Your task to perform on an android device: Go to sound settings Image 0: 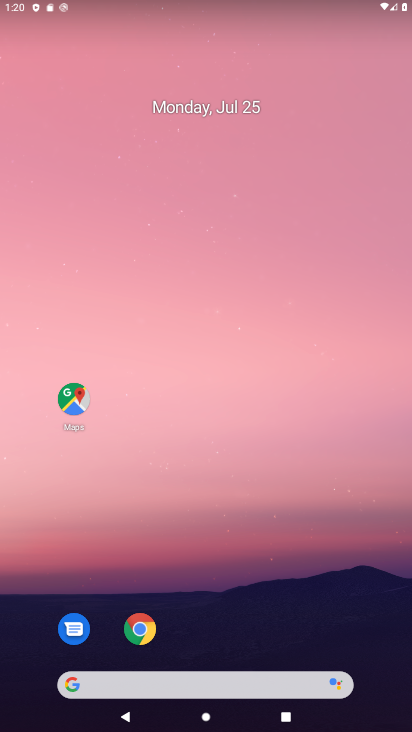
Step 0: drag from (183, 640) to (241, 251)
Your task to perform on an android device: Go to sound settings Image 1: 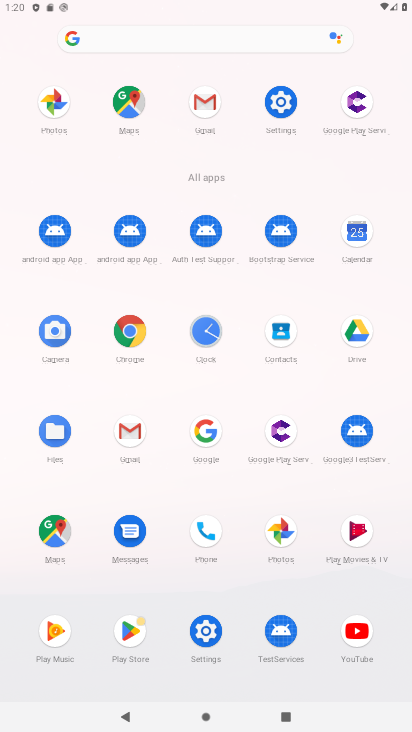
Step 1: click (210, 618)
Your task to perform on an android device: Go to sound settings Image 2: 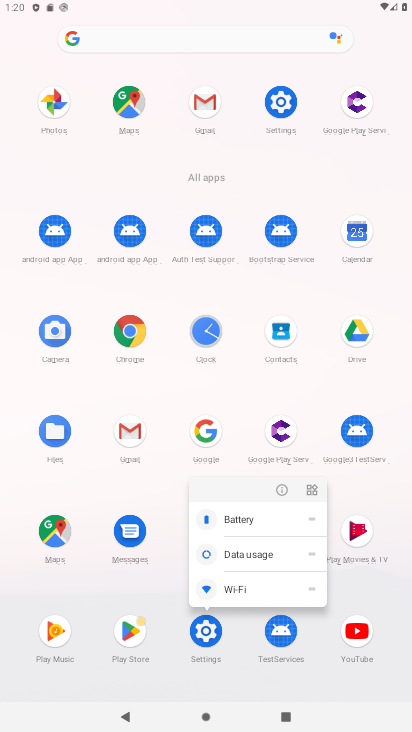
Step 2: click (281, 490)
Your task to perform on an android device: Go to sound settings Image 3: 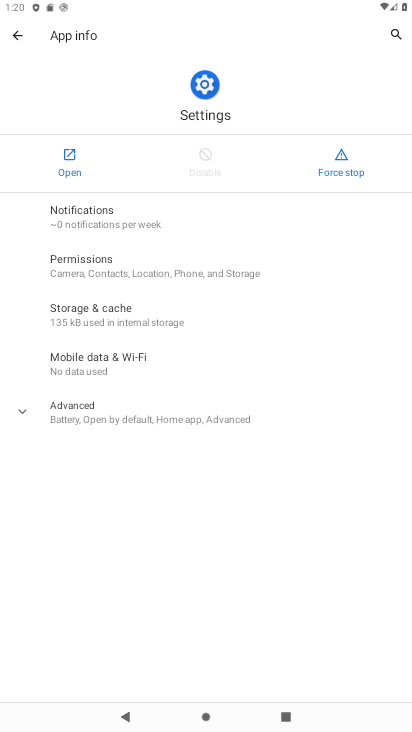
Step 3: click (70, 152)
Your task to perform on an android device: Go to sound settings Image 4: 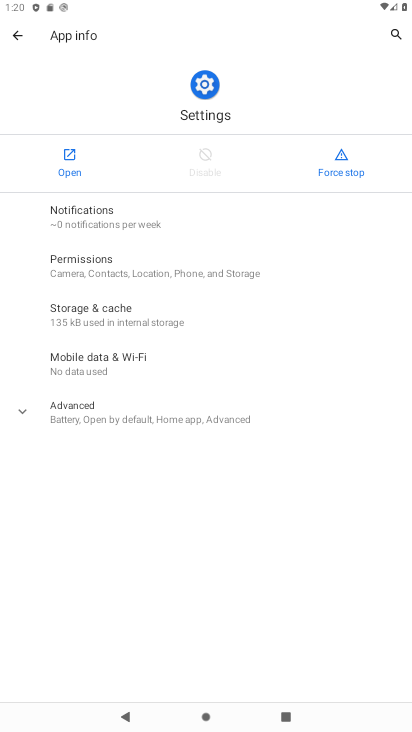
Step 4: click (70, 152)
Your task to perform on an android device: Go to sound settings Image 5: 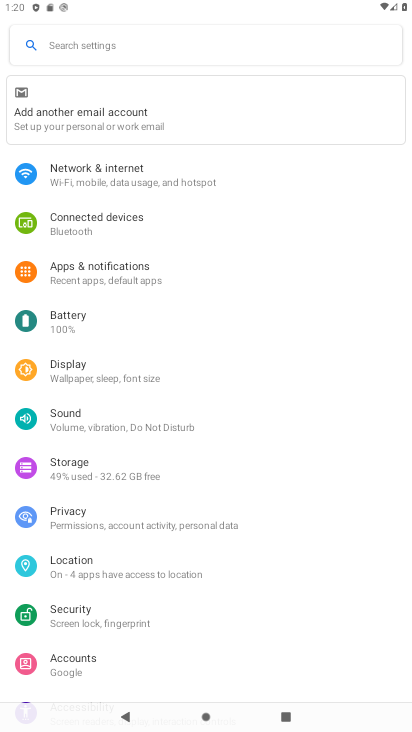
Step 5: click (99, 416)
Your task to perform on an android device: Go to sound settings Image 6: 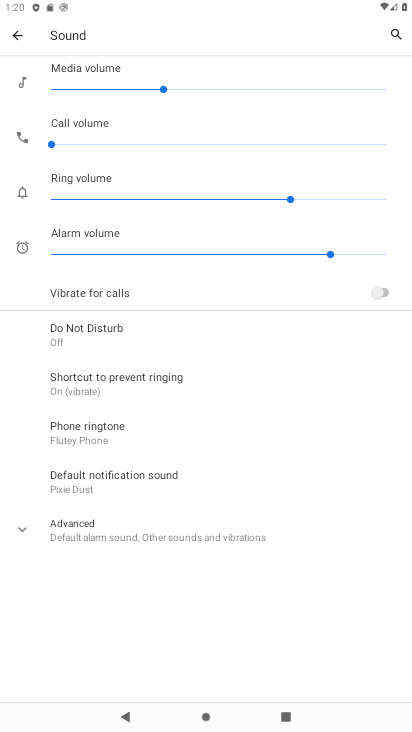
Step 6: task complete